Your task to perform on an android device: Open Yahoo.com Image 0: 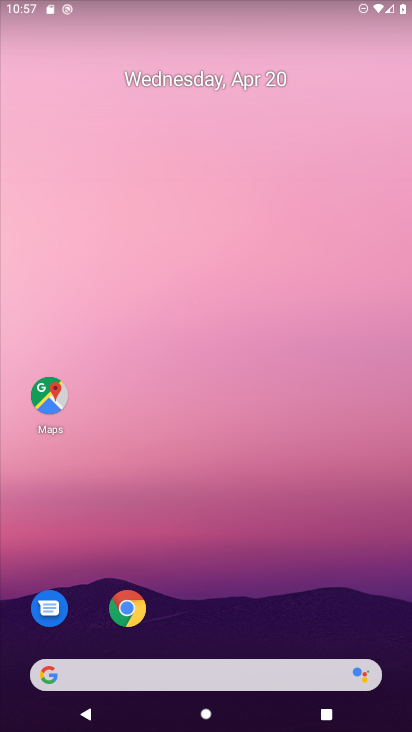
Step 0: click (295, 136)
Your task to perform on an android device: Open Yahoo.com Image 1: 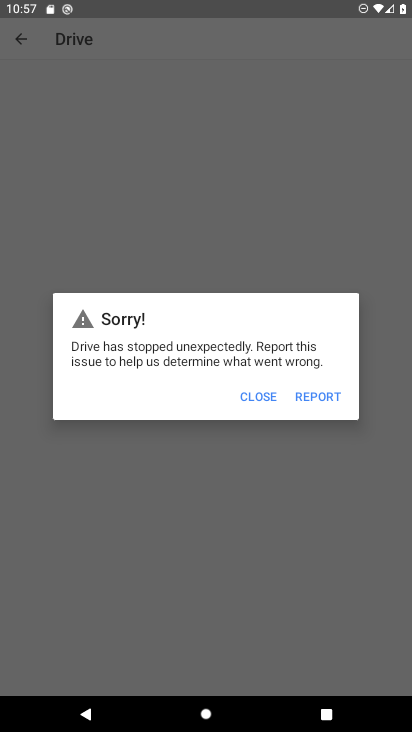
Step 1: press home button
Your task to perform on an android device: Open Yahoo.com Image 2: 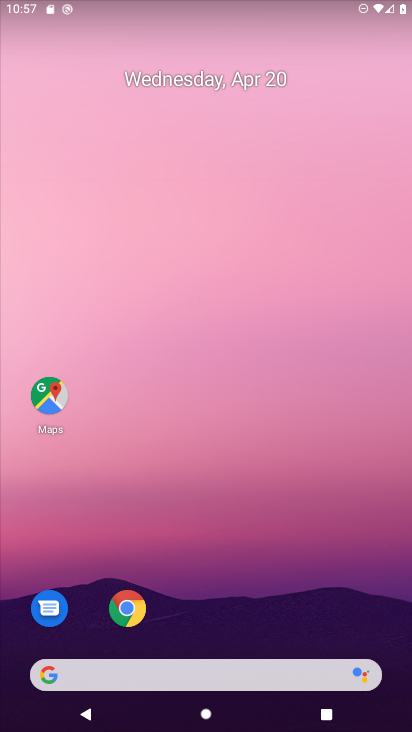
Step 2: drag from (232, 598) to (293, 148)
Your task to perform on an android device: Open Yahoo.com Image 3: 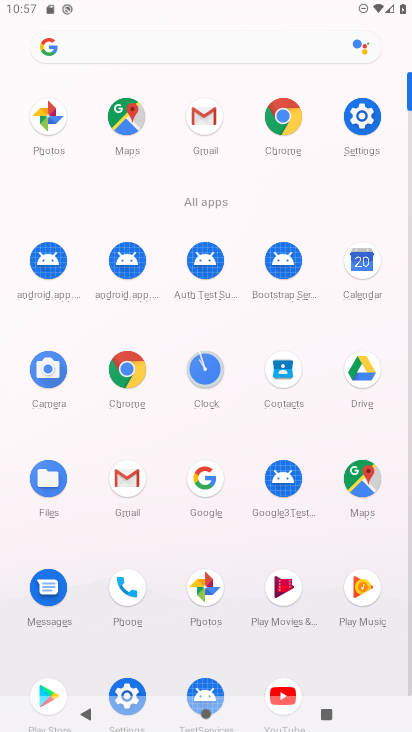
Step 3: click (126, 377)
Your task to perform on an android device: Open Yahoo.com Image 4: 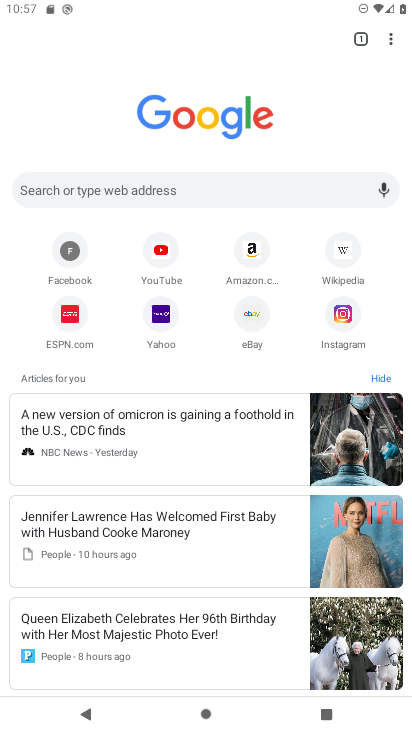
Step 4: click (239, 185)
Your task to perform on an android device: Open Yahoo.com Image 5: 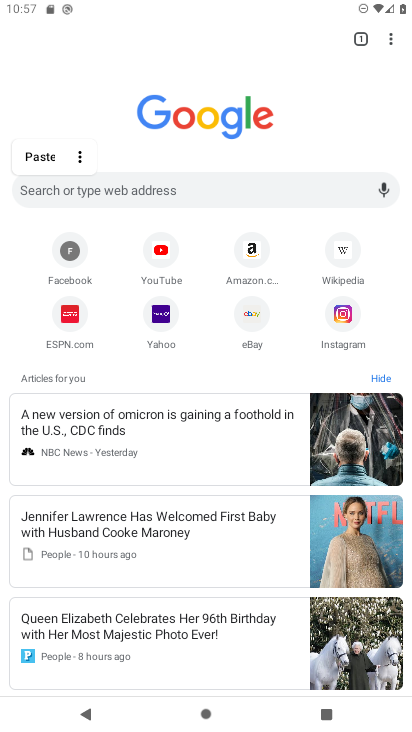
Step 5: type "yahoo.com"
Your task to perform on an android device: Open Yahoo.com Image 6: 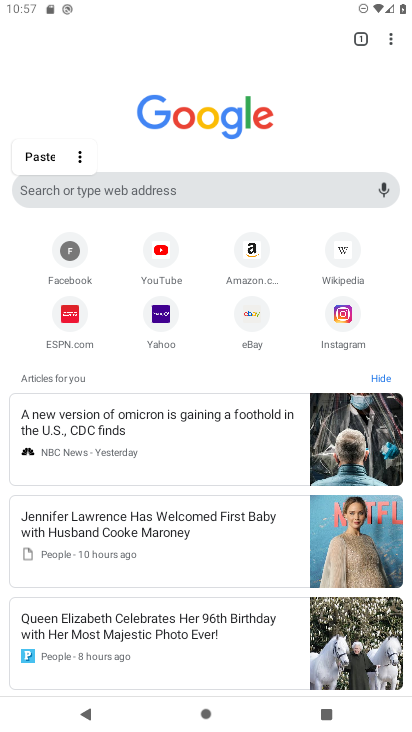
Step 6: click (64, 185)
Your task to perform on an android device: Open Yahoo.com Image 7: 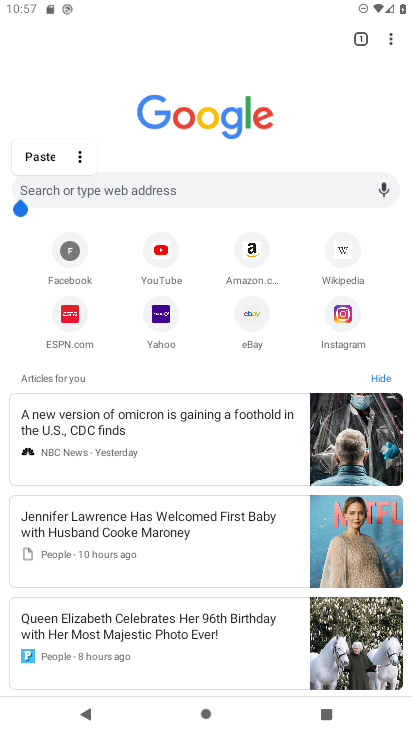
Step 7: click (129, 179)
Your task to perform on an android device: Open Yahoo.com Image 8: 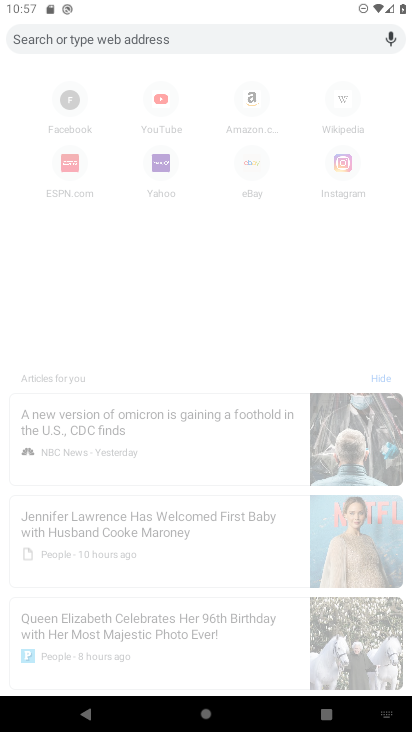
Step 8: type "yahoo.com"
Your task to perform on an android device: Open Yahoo.com Image 9: 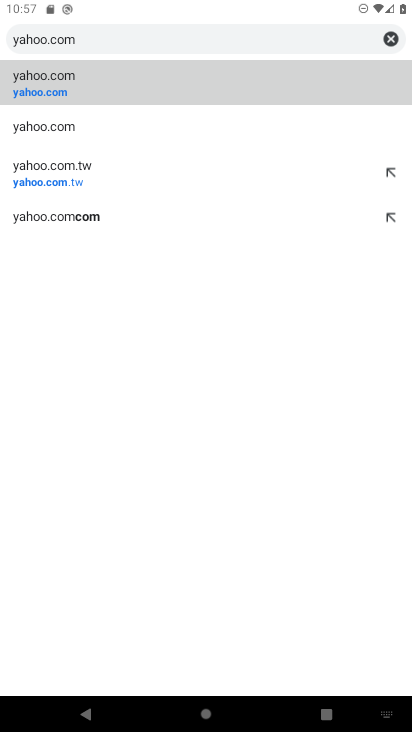
Step 9: click (34, 95)
Your task to perform on an android device: Open Yahoo.com Image 10: 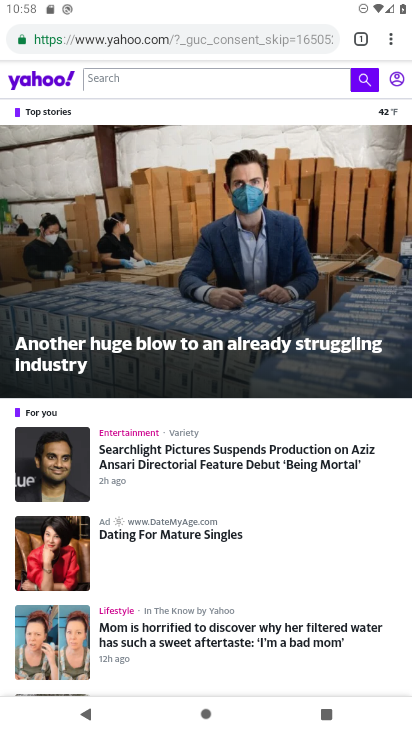
Step 10: task complete